Your task to perform on an android device: turn notification dots on Image 0: 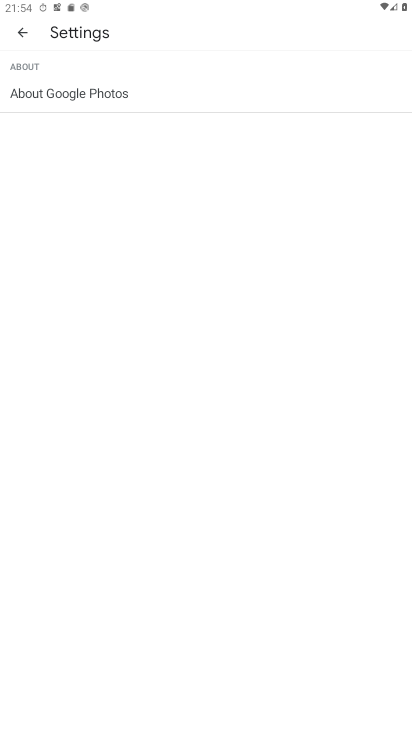
Step 0: press home button
Your task to perform on an android device: turn notification dots on Image 1: 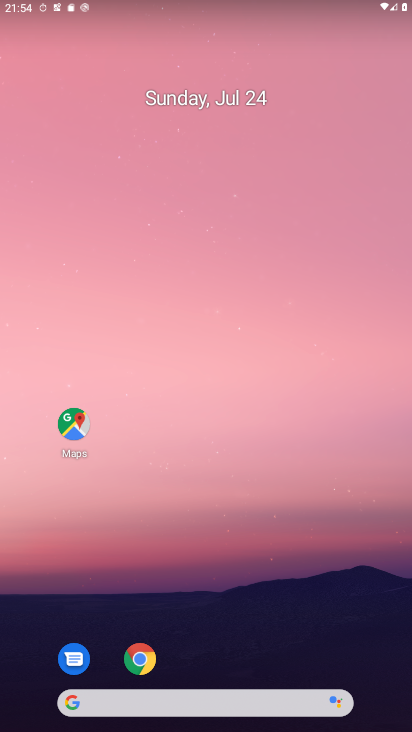
Step 1: drag from (220, 725) to (189, 211)
Your task to perform on an android device: turn notification dots on Image 2: 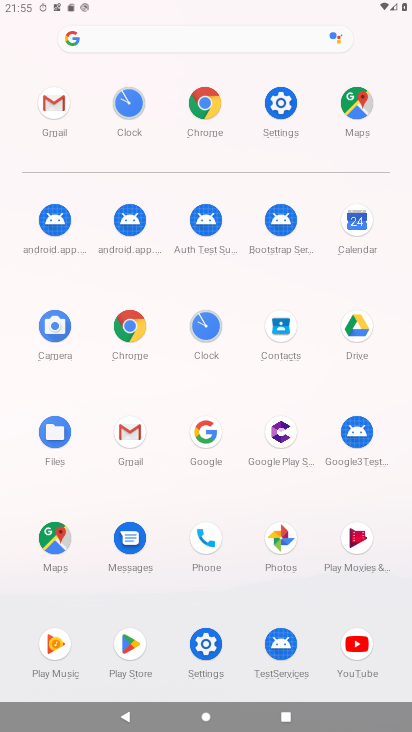
Step 2: click (279, 93)
Your task to perform on an android device: turn notification dots on Image 3: 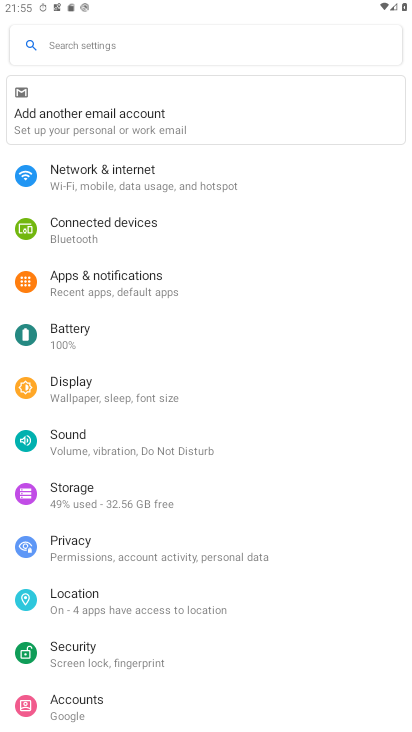
Step 3: click (119, 282)
Your task to perform on an android device: turn notification dots on Image 4: 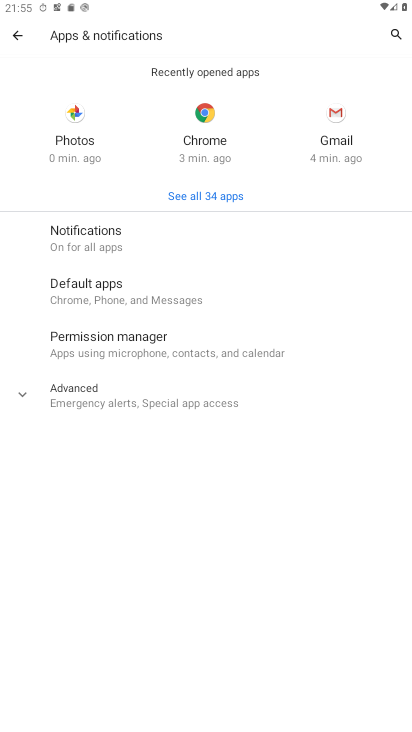
Step 4: click (93, 236)
Your task to perform on an android device: turn notification dots on Image 5: 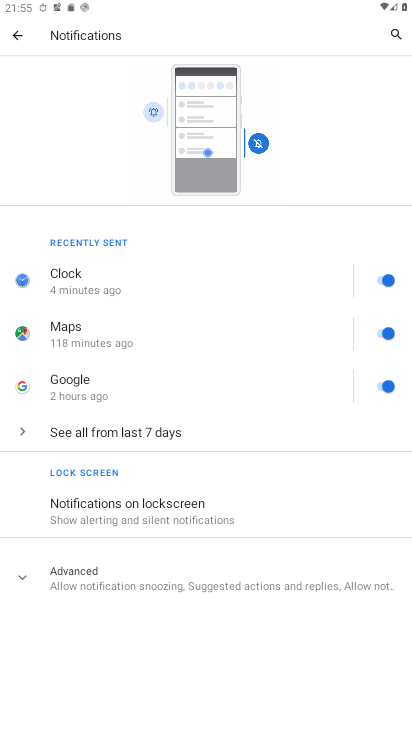
Step 5: click (144, 581)
Your task to perform on an android device: turn notification dots on Image 6: 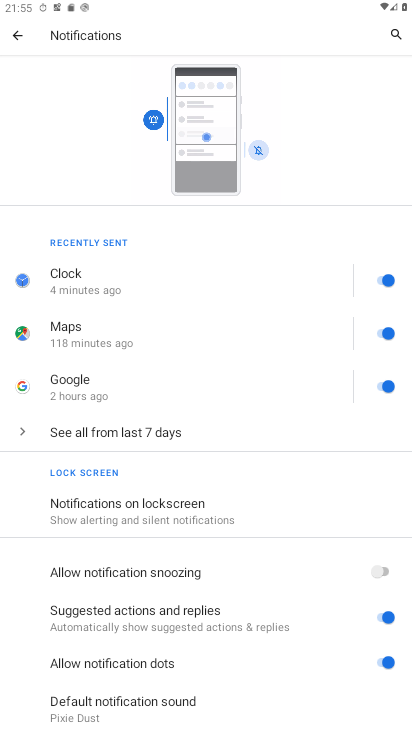
Step 6: task complete